Your task to perform on an android device: Search for "rayovac triple a" on newegg.com, select the first entry, add it to the cart, then select checkout. Image 0: 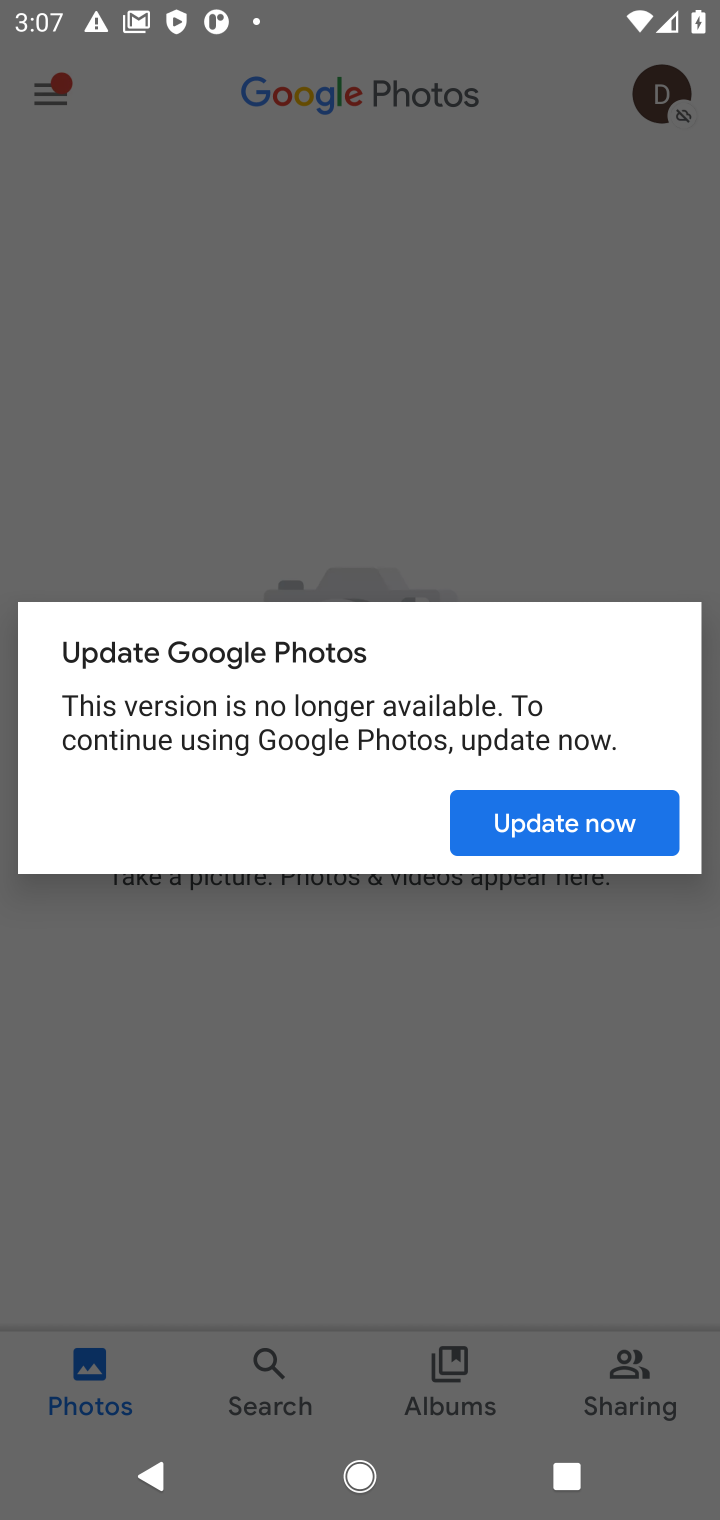
Step 0: press home button
Your task to perform on an android device: Search for "rayovac triple a" on newegg.com, select the first entry, add it to the cart, then select checkout. Image 1: 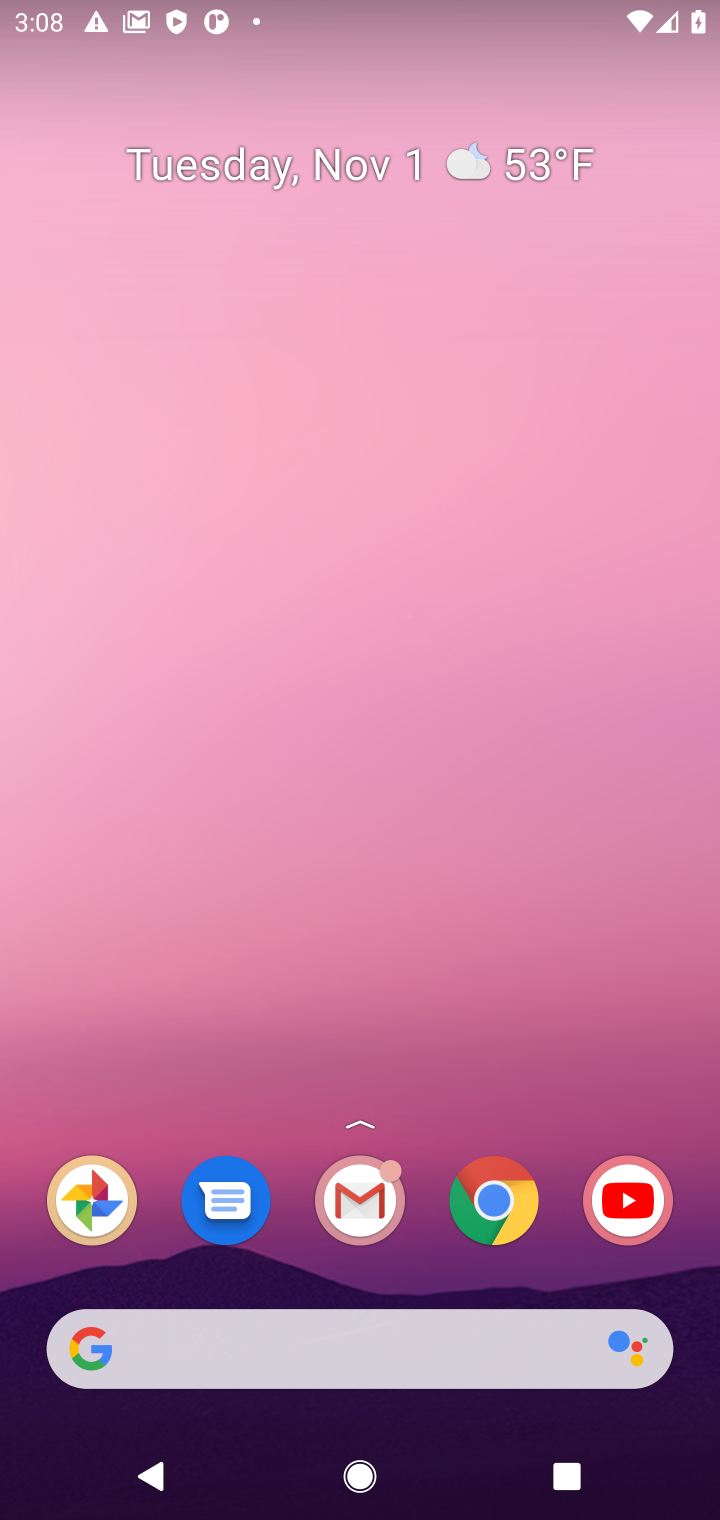
Step 1: click (87, 1349)
Your task to perform on an android device: Search for "rayovac triple a" on newegg.com, select the first entry, add it to the cart, then select checkout. Image 2: 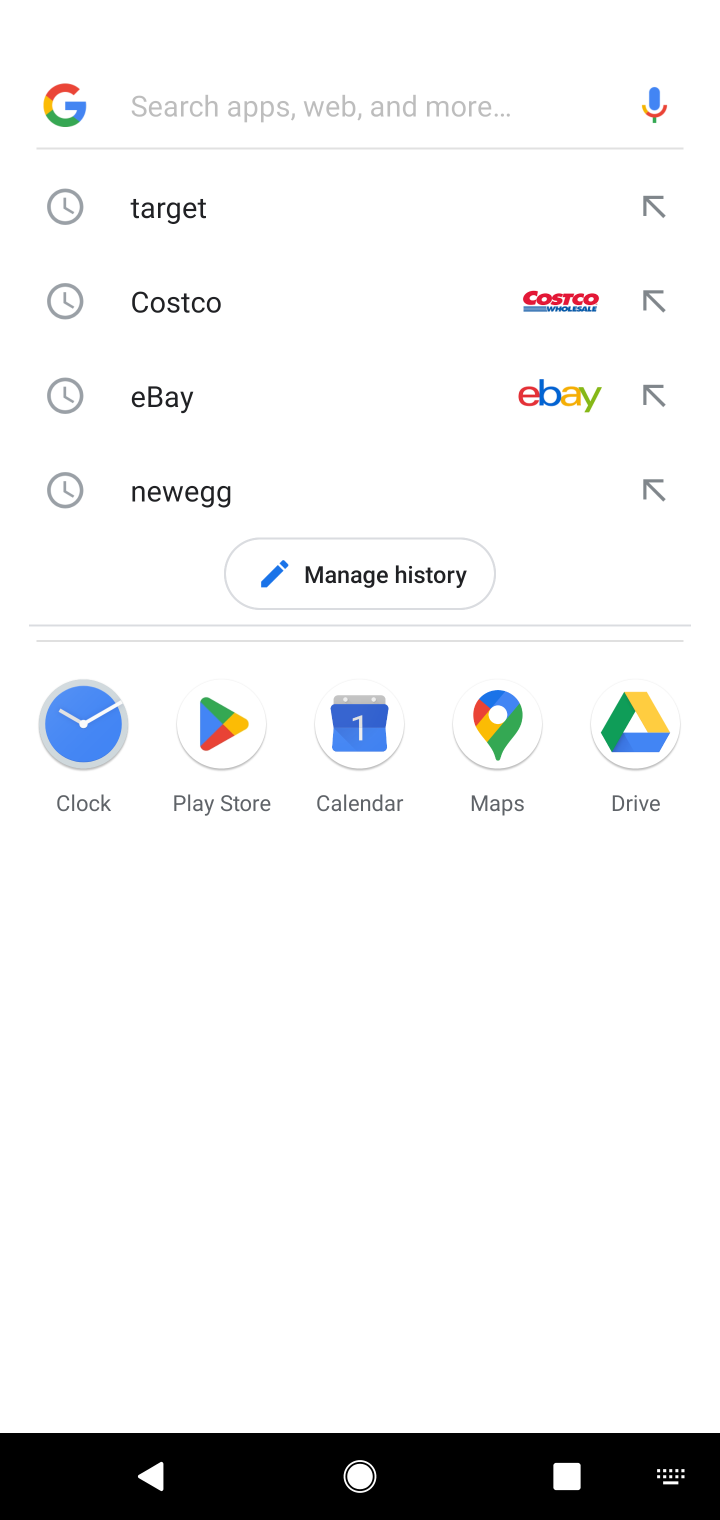
Step 2: click (213, 493)
Your task to perform on an android device: Search for "rayovac triple a" on newegg.com, select the first entry, add it to the cart, then select checkout. Image 3: 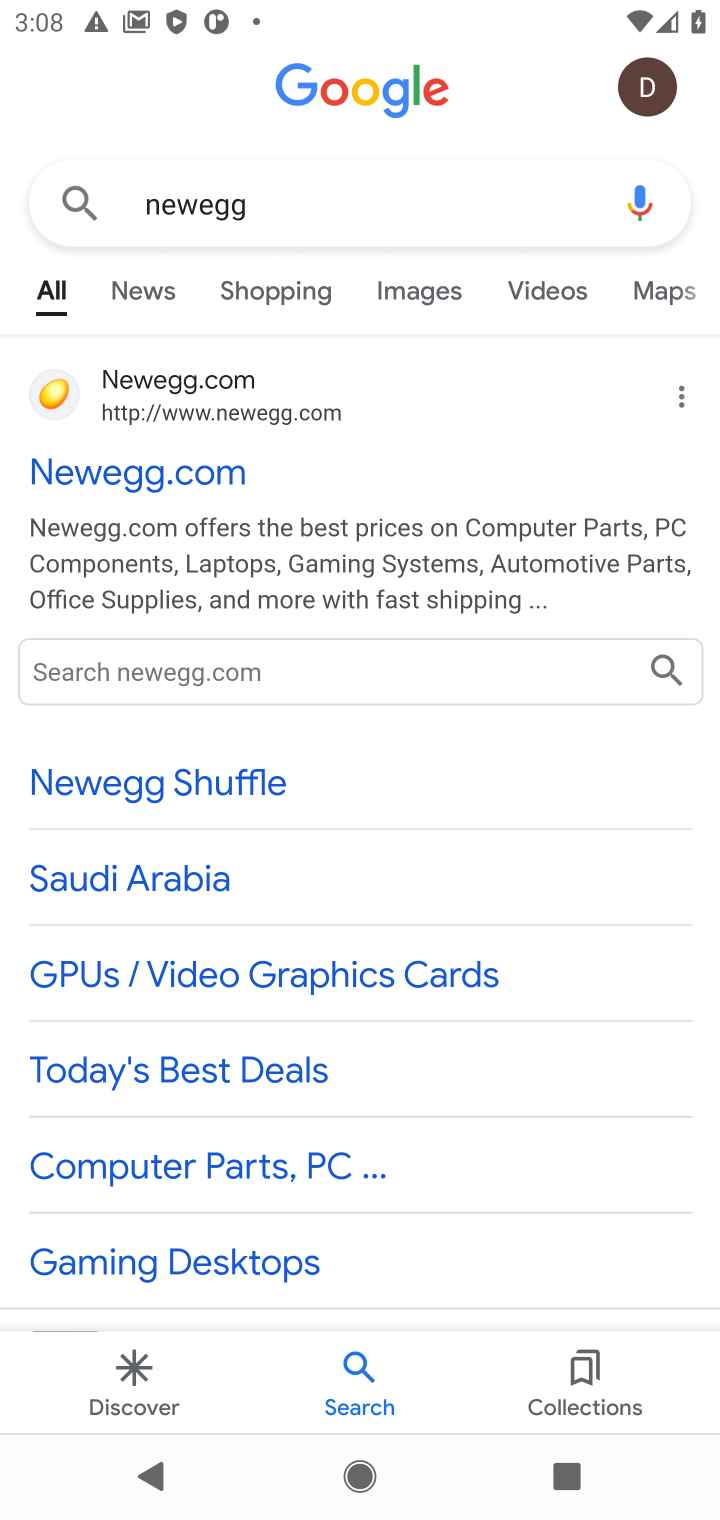
Step 3: click (96, 484)
Your task to perform on an android device: Search for "rayovac triple a" on newegg.com, select the first entry, add it to the cart, then select checkout. Image 4: 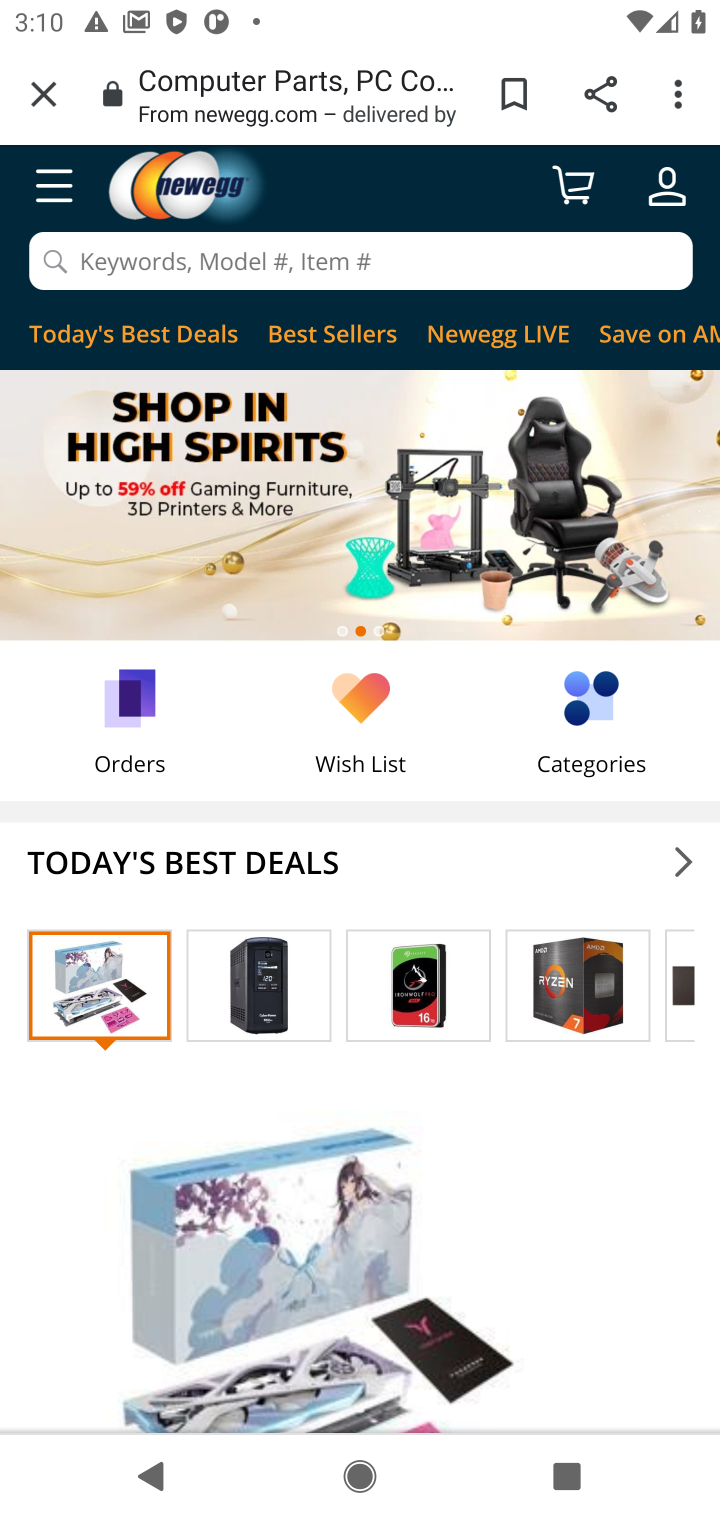
Step 4: click (414, 267)
Your task to perform on an android device: Search for "rayovac triple a" on newegg.com, select the first entry, add it to the cart, then select checkout. Image 5: 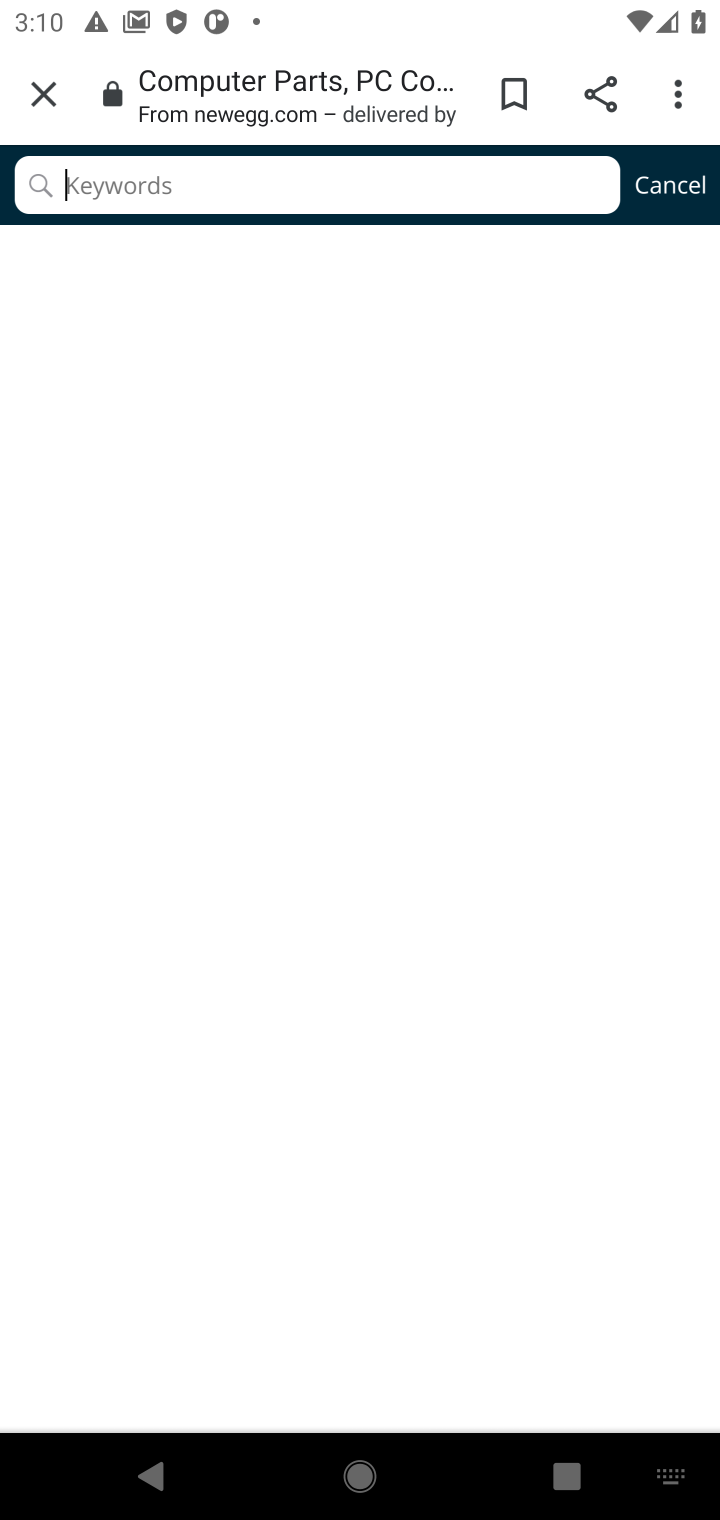
Step 5: type "rayovac triple"
Your task to perform on an android device: Search for "rayovac triple a" on newegg.com, select the first entry, add it to the cart, then select checkout. Image 6: 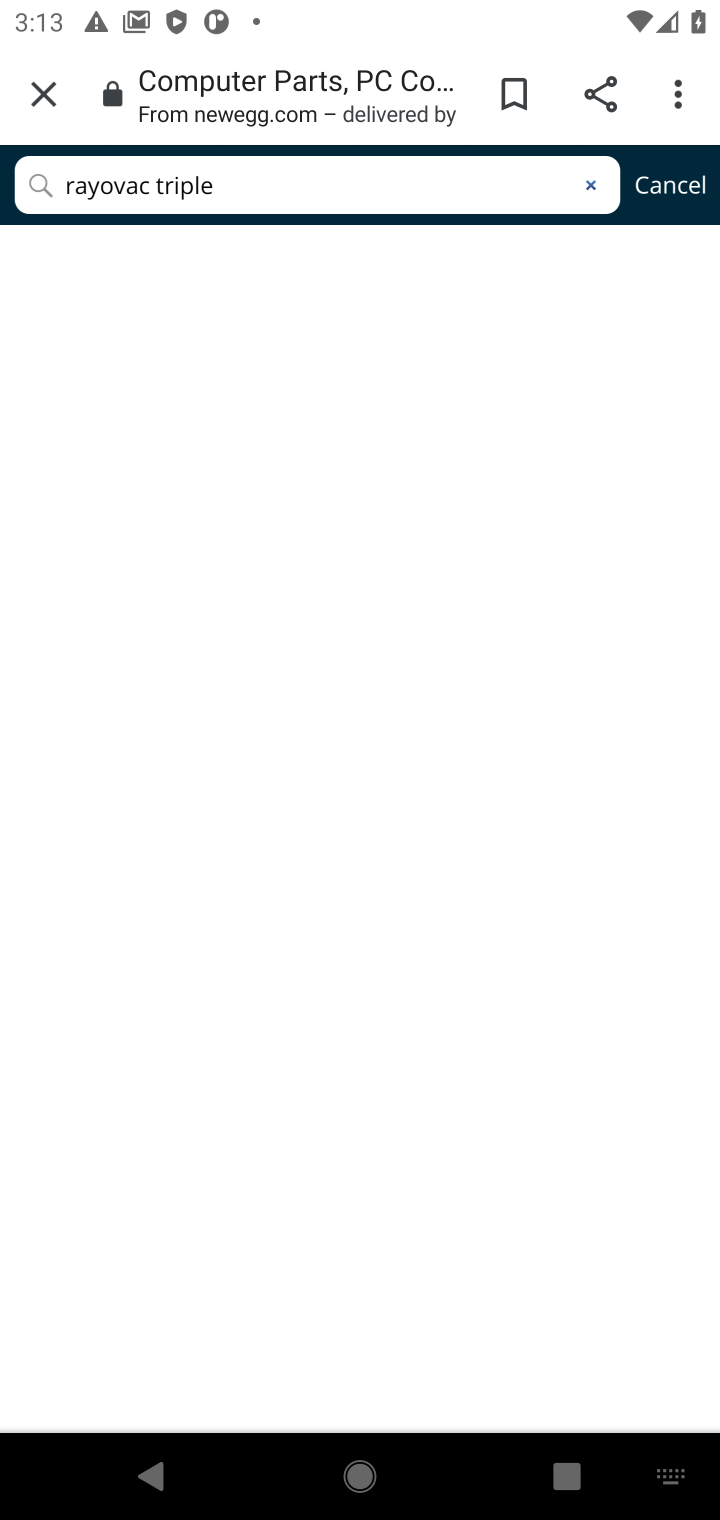
Step 6: task complete